Your task to perform on an android device: Open the Play Movies app and select the watchlist tab. Image 0: 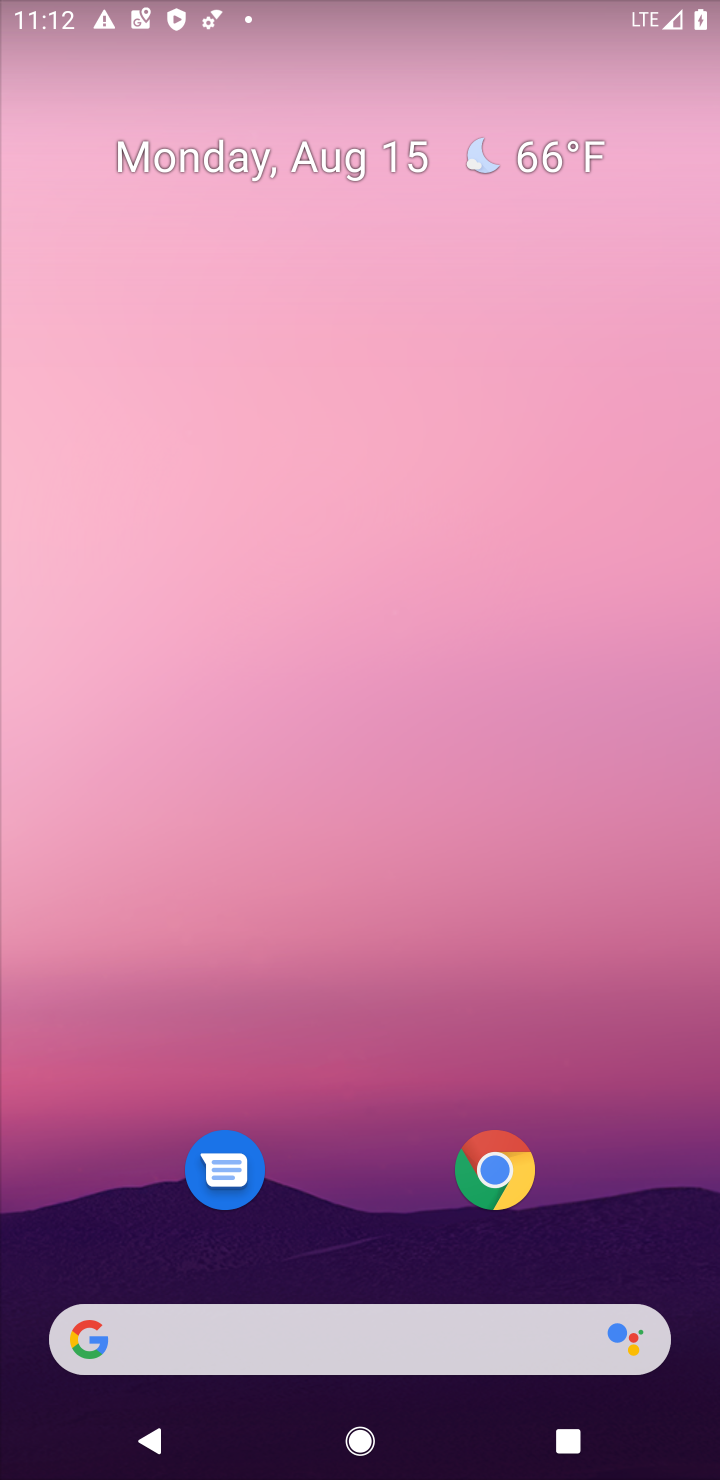
Step 0: press home button
Your task to perform on an android device: Open the Play Movies app and select the watchlist tab. Image 1: 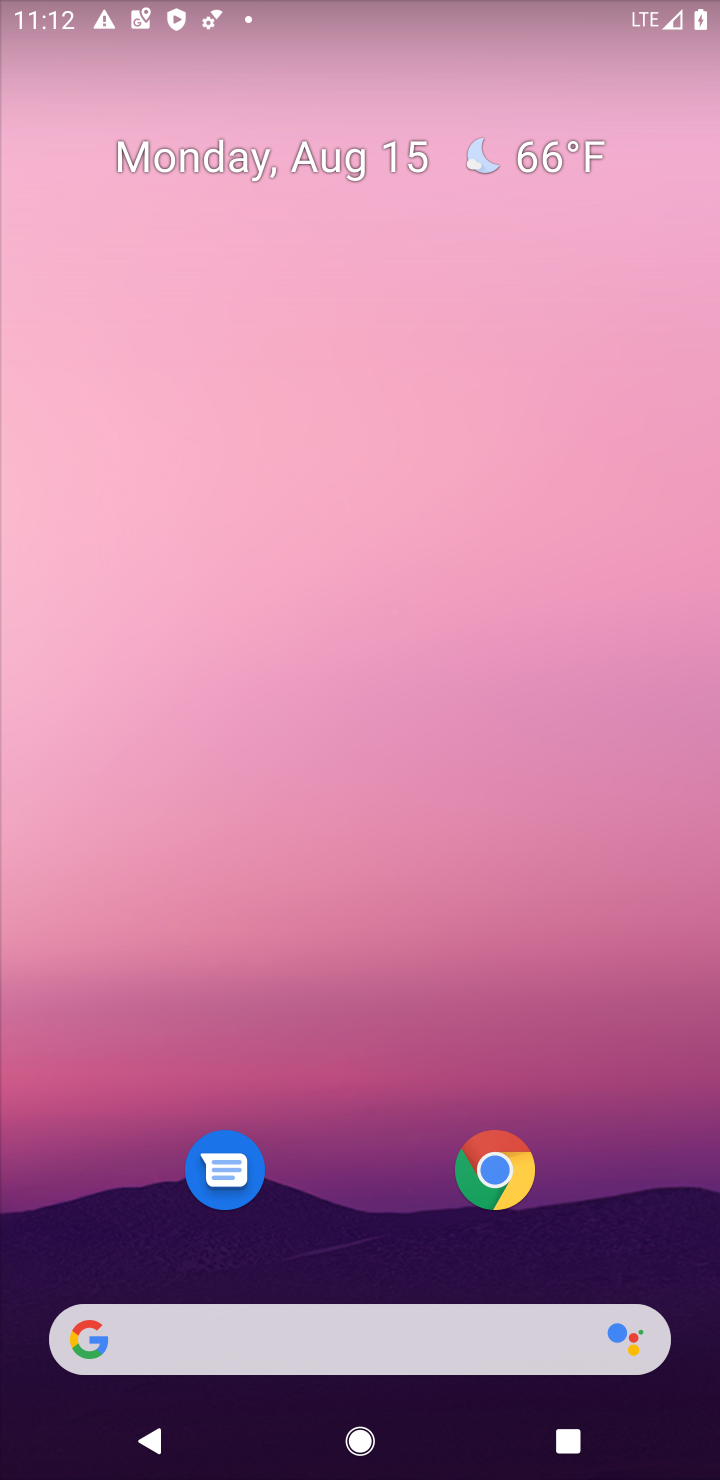
Step 1: drag from (399, 1279) to (444, 95)
Your task to perform on an android device: Open the Play Movies app and select the watchlist tab. Image 2: 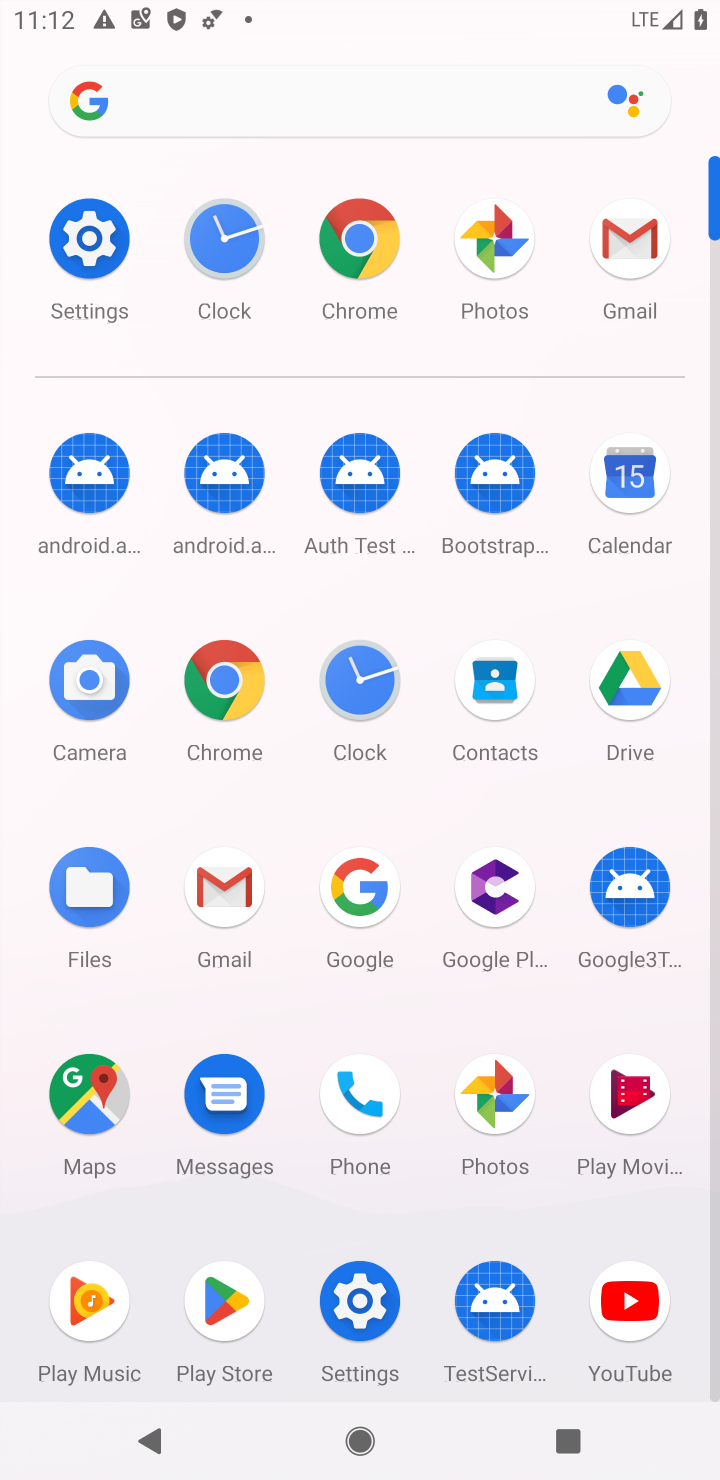
Step 2: click (619, 1085)
Your task to perform on an android device: Open the Play Movies app and select the watchlist tab. Image 3: 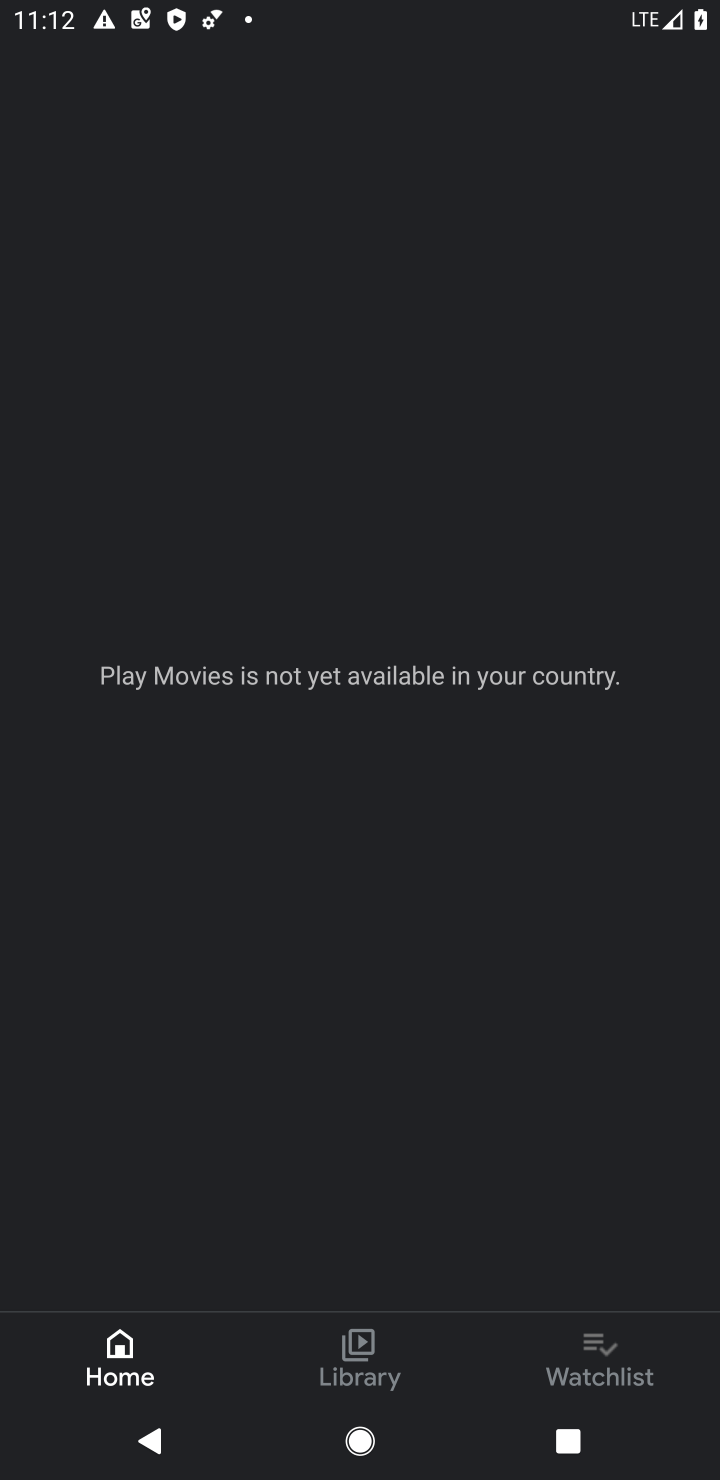
Step 3: click (600, 1338)
Your task to perform on an android device: Open the Play Movies app and select the watchlist tab. Image 4: 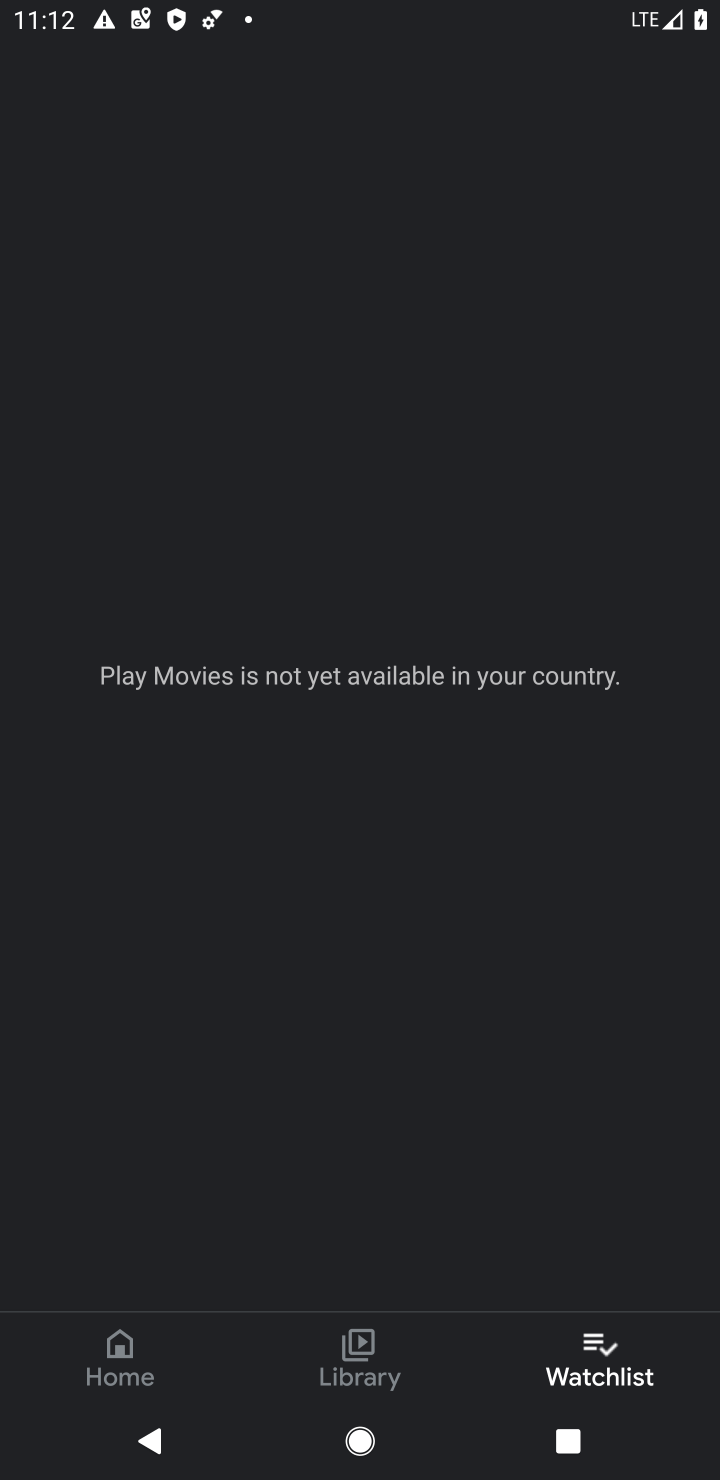
Step 4: task complete